Your task to perform on an android device: show emergency info Image 0: 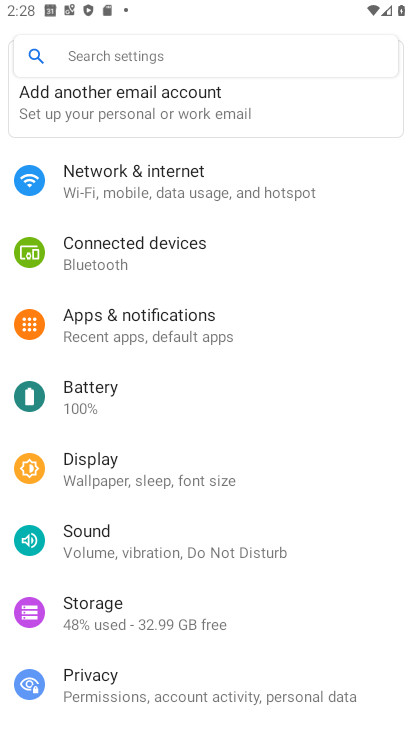
Step 0: drag from (277, 627) to (335, 118)
Your task to perform on an android device: show emergency info Image 1: 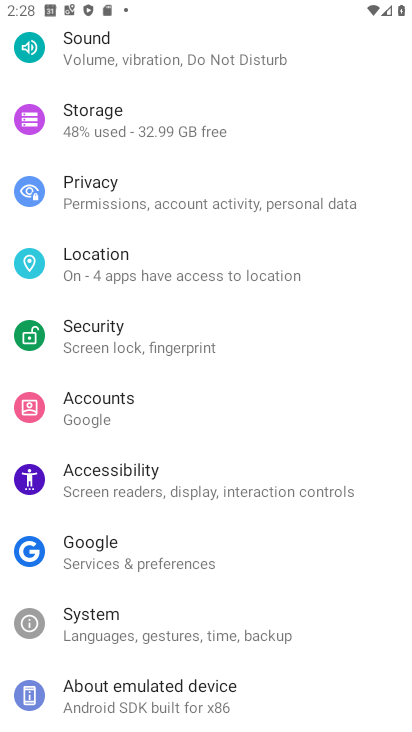
Step 1: click (177, 687)
Your task to perform on an android device: show emergency info Image 2: 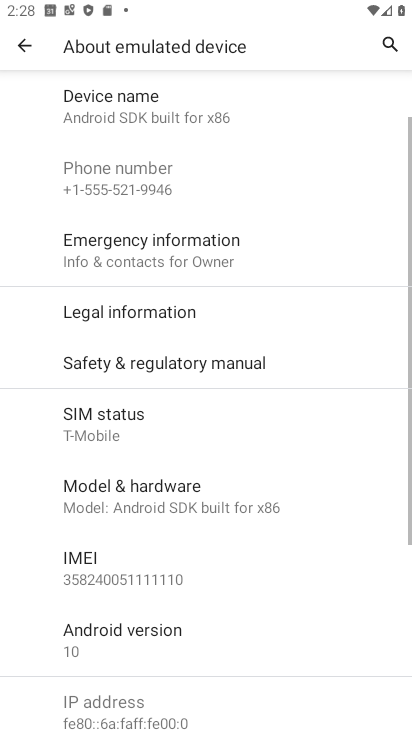
Step 2: click (201, 243)
Your task to perform on an android device: show emergency info Image 3: 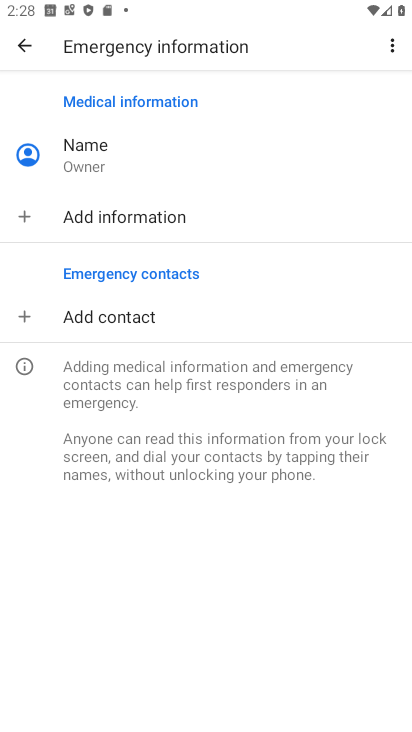
Step 3: task complete